Your task to perform on an android device: turn notification dots off Image 0: 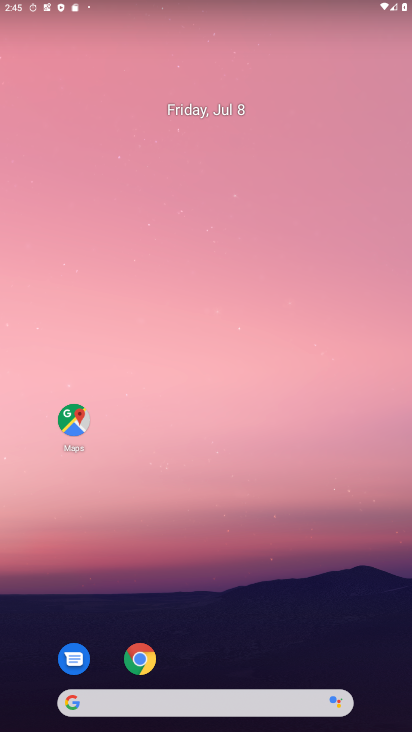
Step 0: drag from (333, 625) to (318, 244)
Your task to perform on an android device: turn notification dots off Image 1: 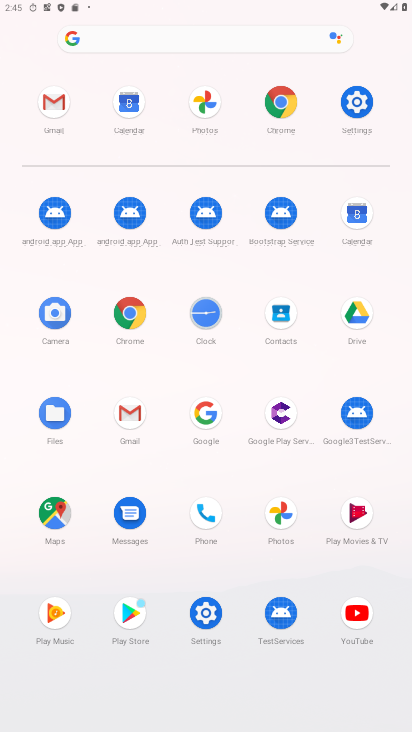
Step 1: click (353, 101)
Your task to perform on an android device: turn notification dots off Image 2: 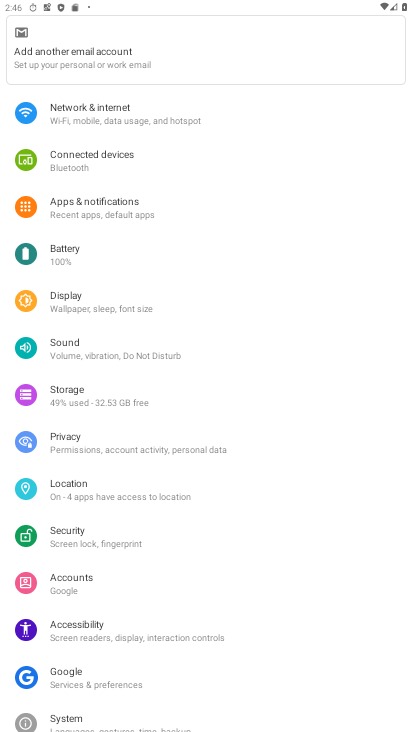
Step 2: click (138, 217)
Your task to perform on an android device: turn notification dots off Image 3: 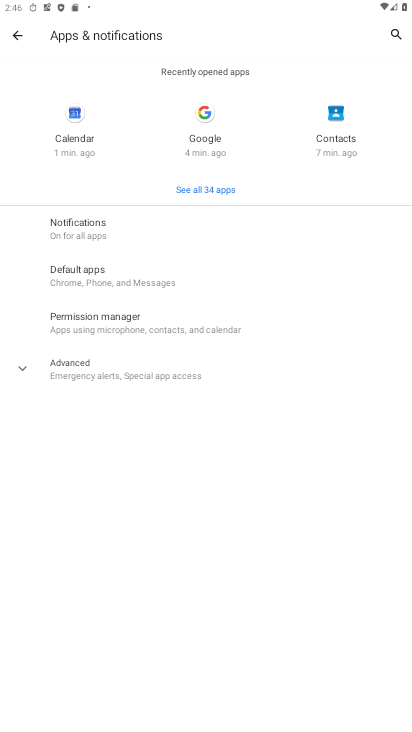
Step 3: click (123, 222)
Your task to perform on an android device: turn notification dots off Image 4: 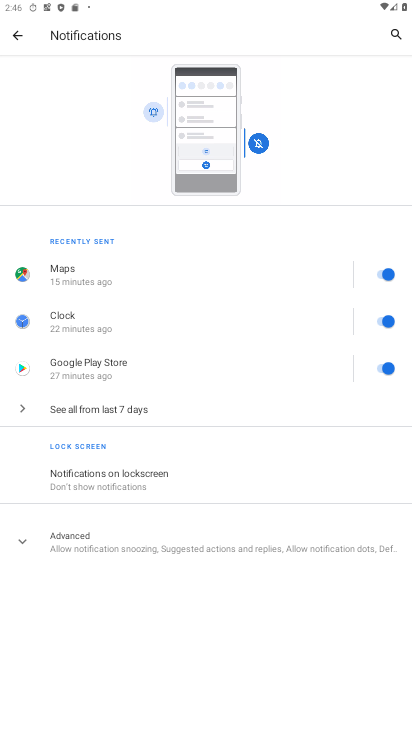
Step 4: click (130, 536)
Your task to perform on an android device: turn notification dots off Image 5: 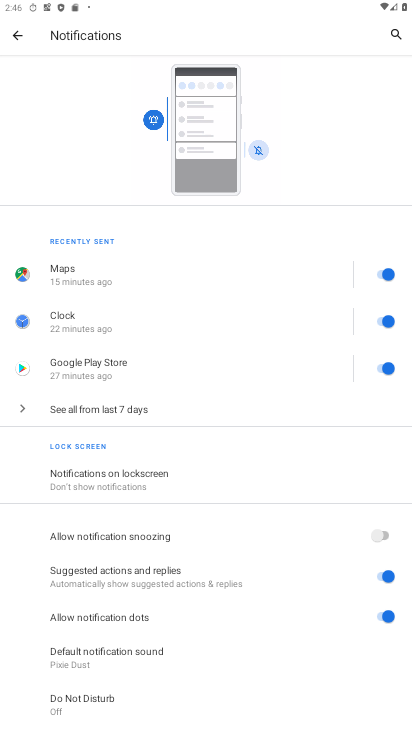
Step 5: click (379, 614)
Your task to perform on an android device: turn notification dots off Image 6: 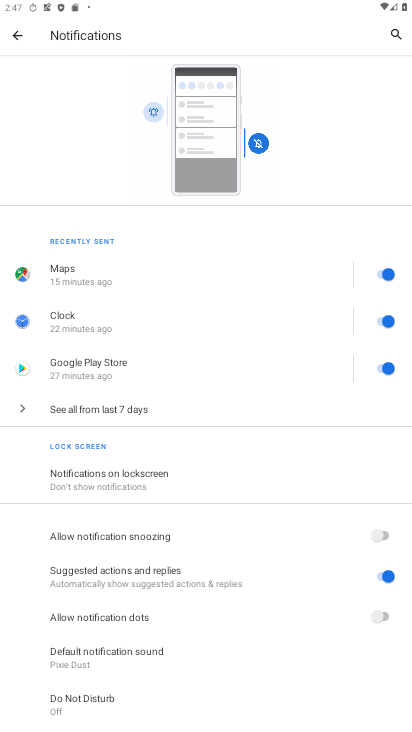
Step 6: task complete